Your task to perform on an android device: open chrome privacy settings Image 0: 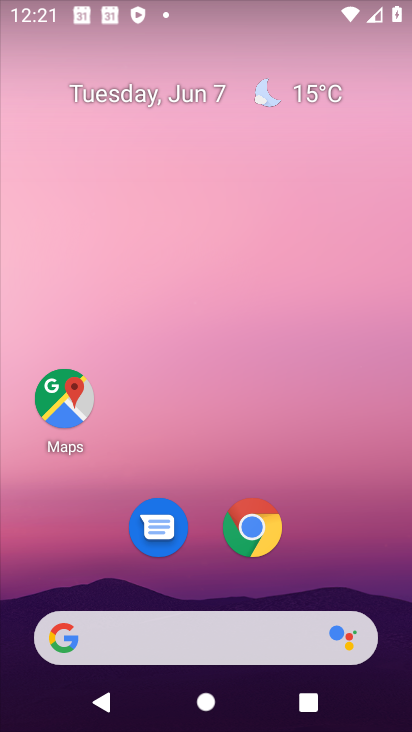
Step 0: drag from (167, 83) to (410, 395)
Your task to perform on an android device: open chrome privacy settings Image 1: 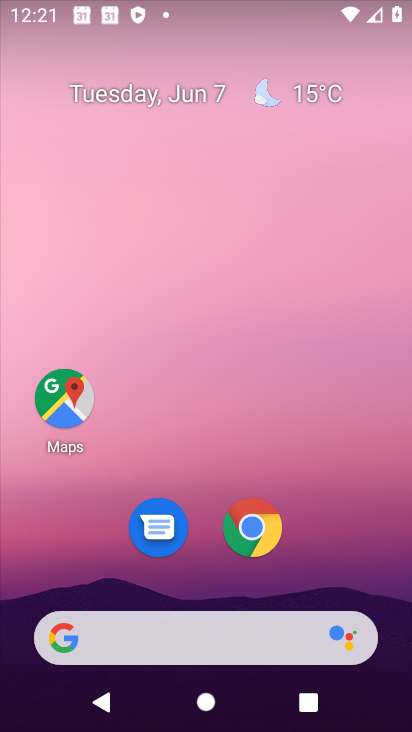
Step 1: click (225, 101)
Your task to perform on an android device: open chrome privacy settings Image 2: 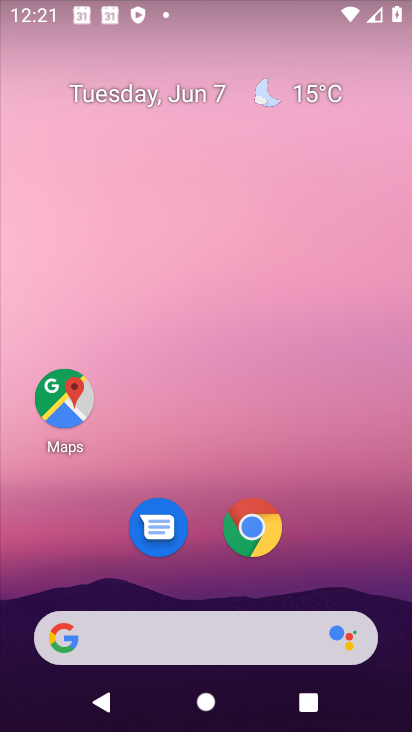
Step 2: drag from (249, 648) to (194, 160)
Your task to perform on an android device: open chrome privacy settings Image 3: 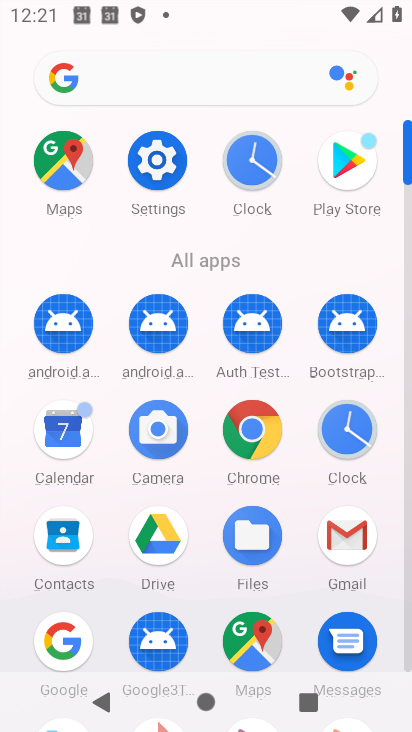
Step 3: click (251, 430)
Your task to perform on an android device: open chrome privacy settings Image 4: 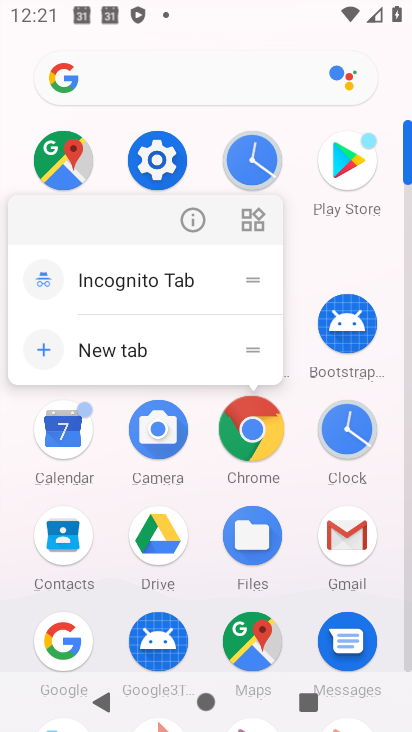
Step 4: click (252, 431)
Your task to perform on an android device: open chrome privacy settings Image 5: 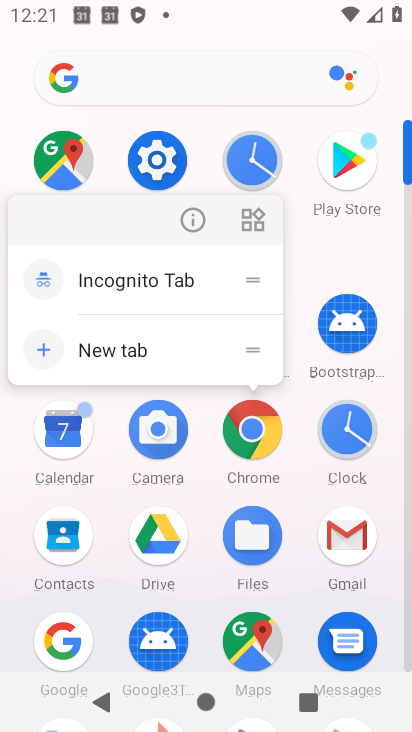
Step 5: click (255, 430)
Your task to perform on an android device: open chrome privacy settings Image 6: 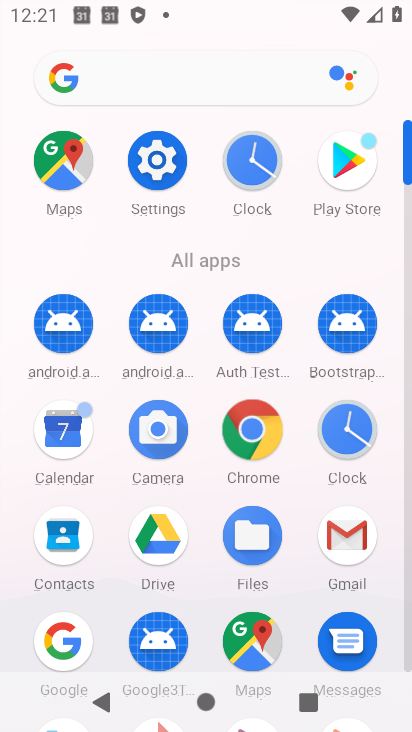
Step 6: click (256, 429)
Your task to perform on an android device: open chrome privacy settings Image 7: 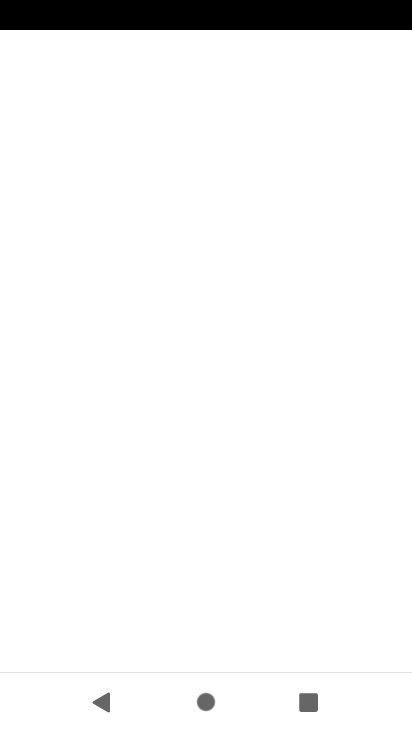
Step 7: click (256, 429)
Your task to perform on an android device: open chrome privacy settings Image 8: 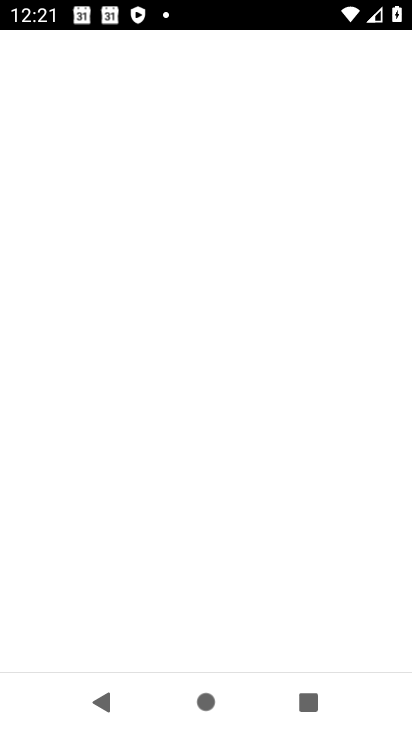
Step 8: click (256, 427)
Your task to perform on an android device: open chrome privacy settings Image 9: 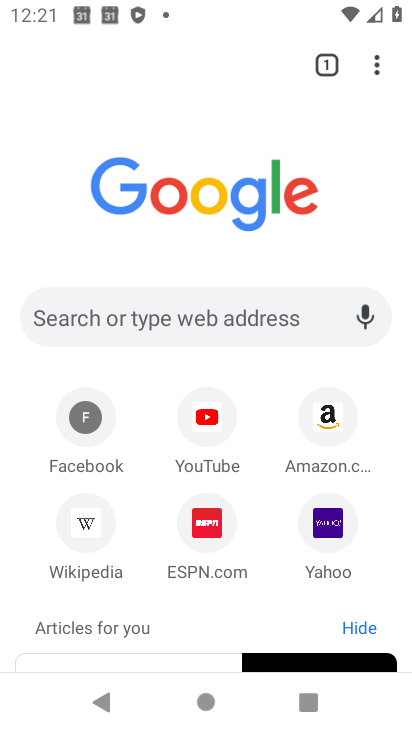
Step 9: drag from (377, 76) to (128, 546)
Your task to perform on an android device: open chrome privacy settings Image 10: 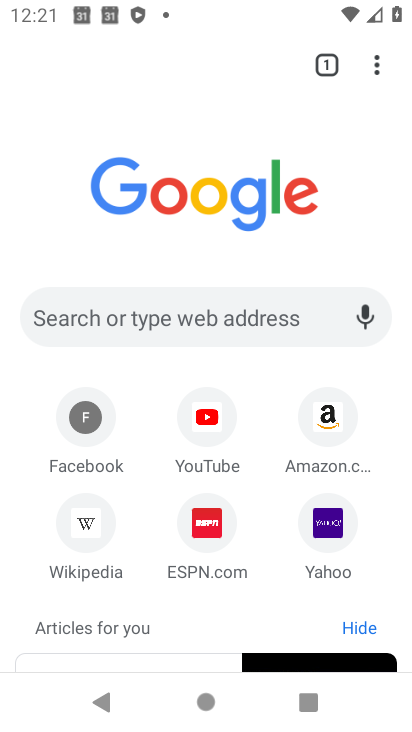
Step 10: click (131, 545)
Your task to perform on an android device: open chrome privacy settings Image 11: 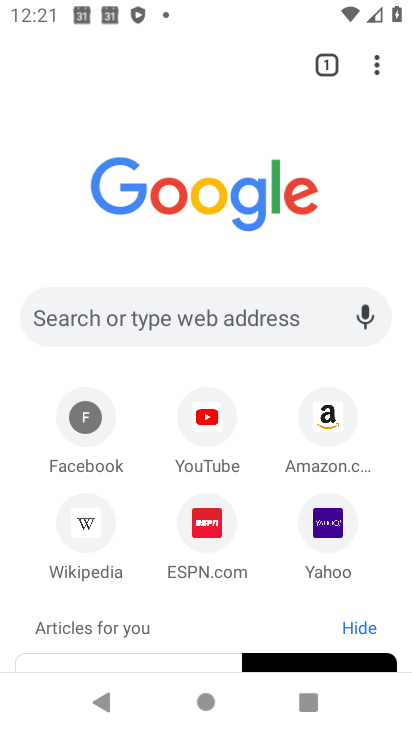
Step 11: click (131, 545)
Your task to perform on an android device: open chrome privacy settings Image 12: 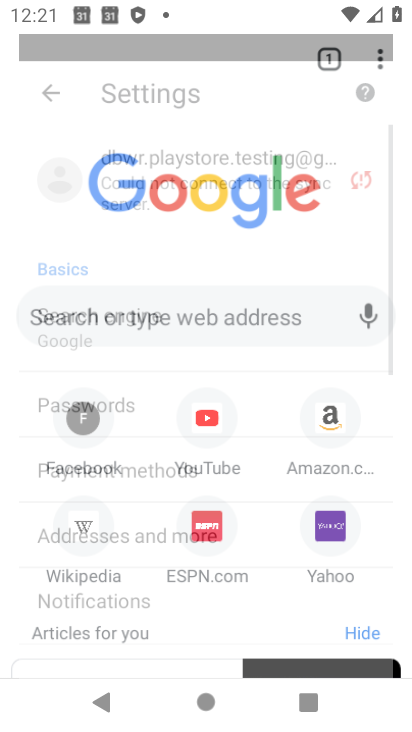
Step 12: click (131, 545)
Your task to perform on an android device: open chrome privacy settings Image 13: 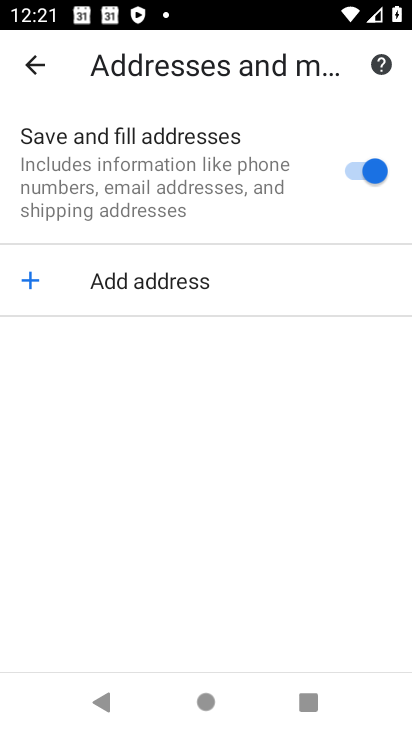
Step 13: click (37, 68)
Your task to perform on an android device: open chrome privacy settings Image 14: 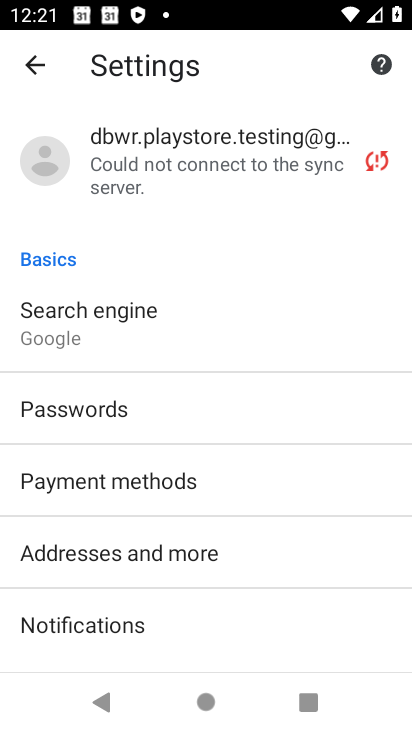
Step 14: click (34, 69)
Your task to perform on an android device: open chrome privacy settings Image 15: 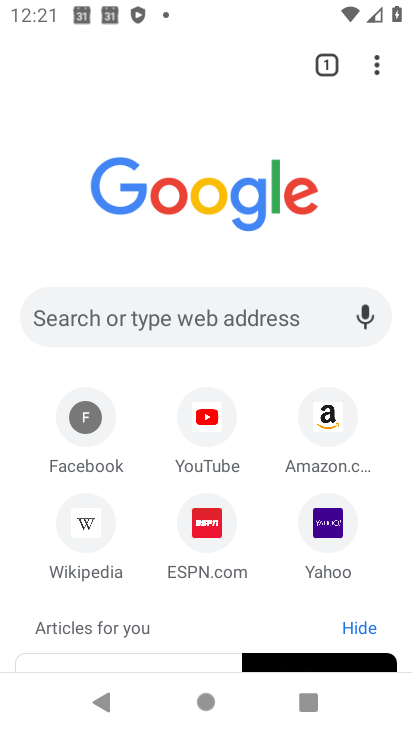
Step 15: click (378, 66)
Your task to perform on an android device: open chrome privacy settings Image 16: 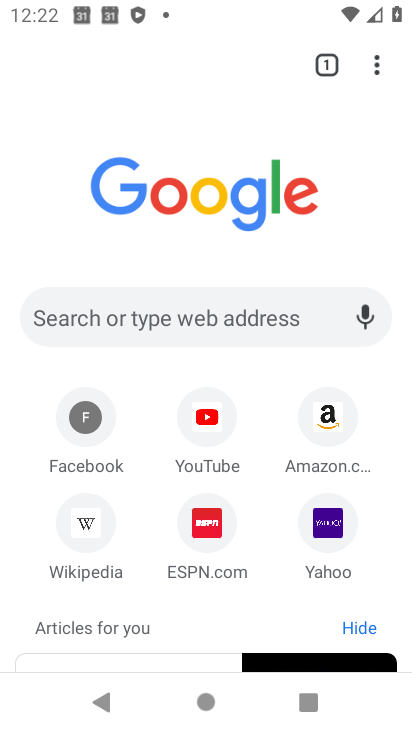
Step 16: drag from (378, 70) to (132, 544)
Your task to perform on an android device: open chrome privacy settings Image 17: 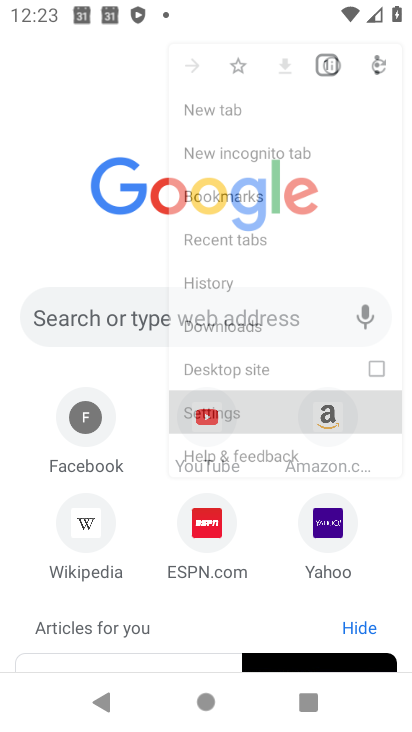
Step 17: click (132, 544)
Your task to perform on an android device: open chrome privacy settings Image 18: 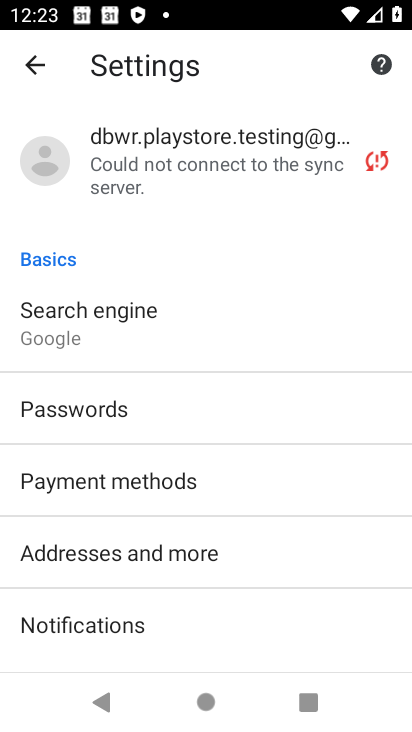
Step 18: drag from (125, 438) to (88, 95)
Your task to perform on an android device: open chrome privacy settings Image 19: 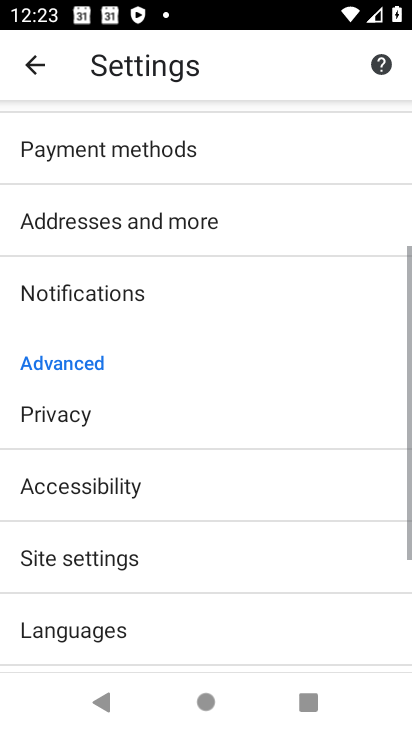
Step 19: drag from (118, 395) to (73, 128)
Your task to perform on an android device: open chrome privacy settings Image 20: 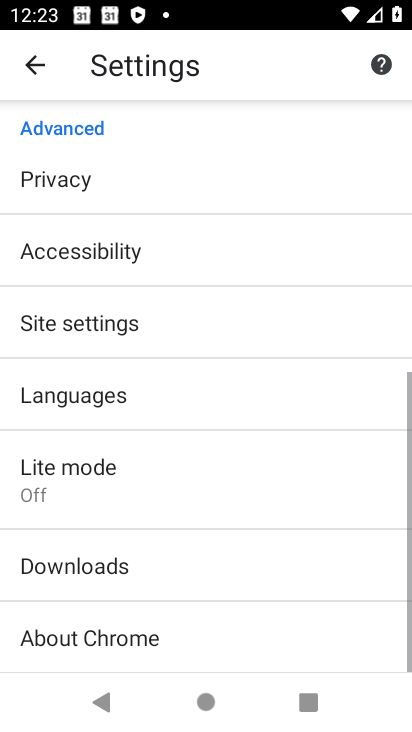
Step 20: drag from (160, 420) to (155, 165)
Your task to perform on an android device: open chrome privacy settings Image 21: 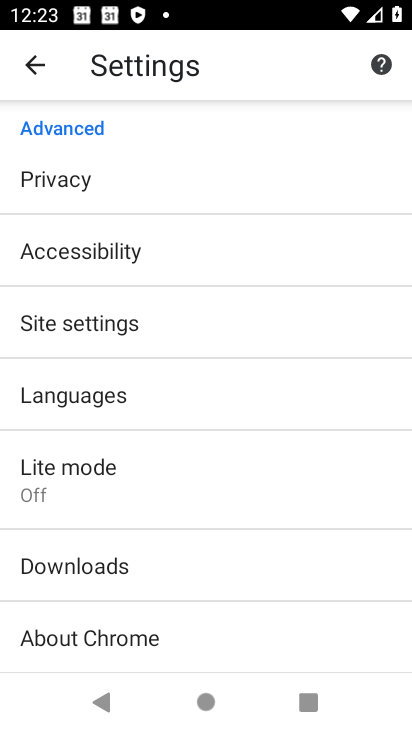
Step 21: click (46, 184)
Your task to perform on an android device: open chrome privacy settings Image 22: 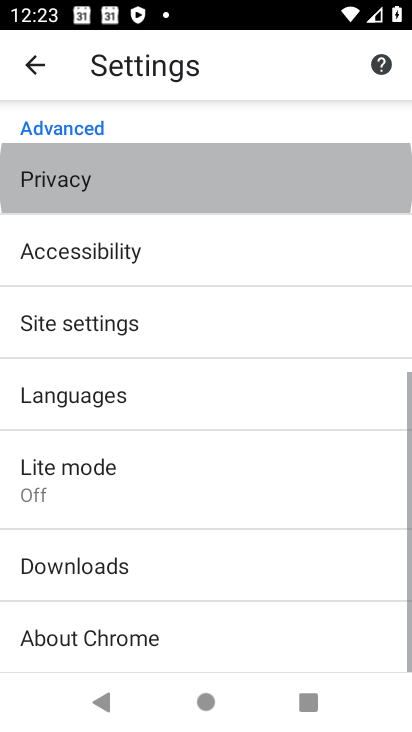
Step 22: click (46, 184)
Your task to perform on an android device: open chrome privacy settings Image 23: 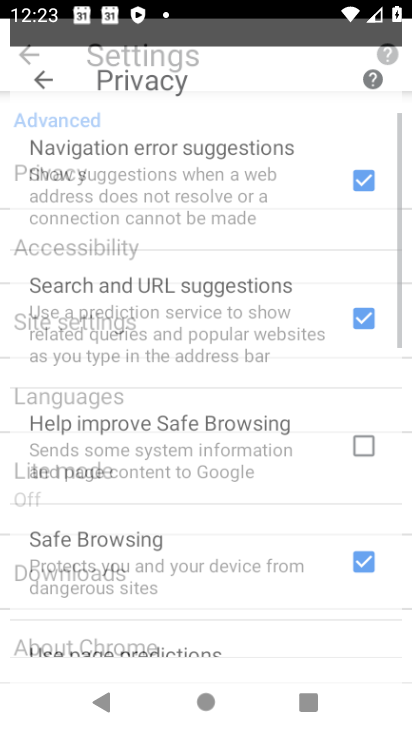
Step 23: click (47, 182)
Your task to perform on an android device: open chrome privacy settings Image 24: 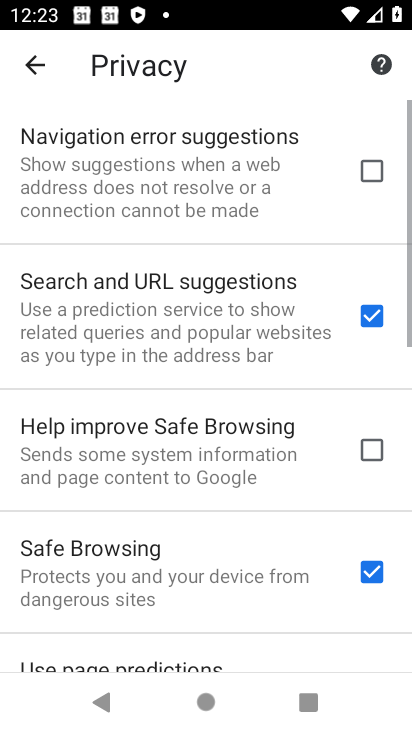
Step 24: task complete